Your task to perform on an android device: Go to ESPN.com Image 0: 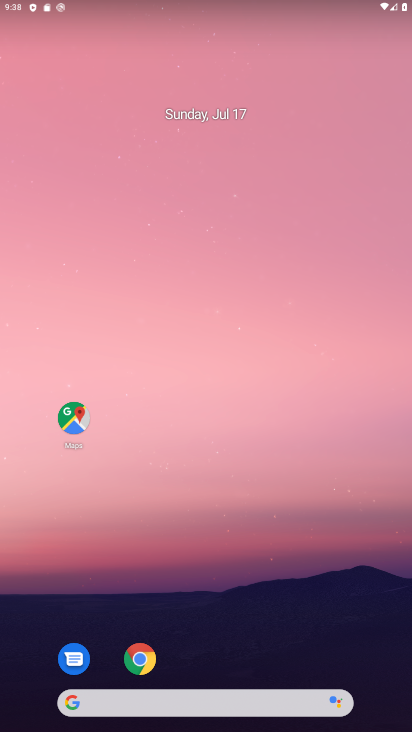
Step 0: click (150, 658)
Your task to perform on an android device: Go to ESPN.com Image 1: 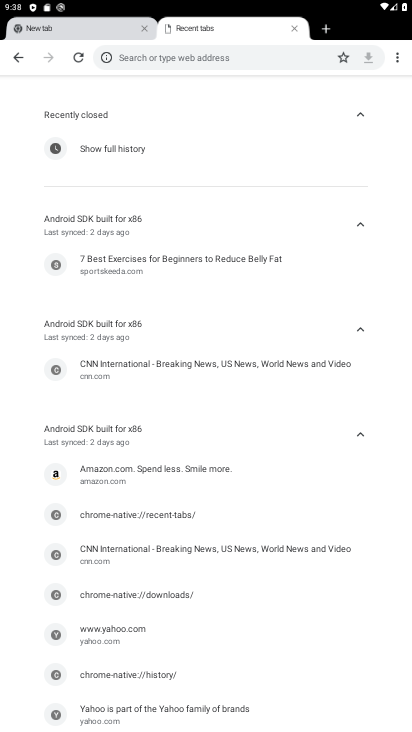
Step 1: click (184, 52)
Your task to perform on an android device: Go to ESPN.com Image 2: 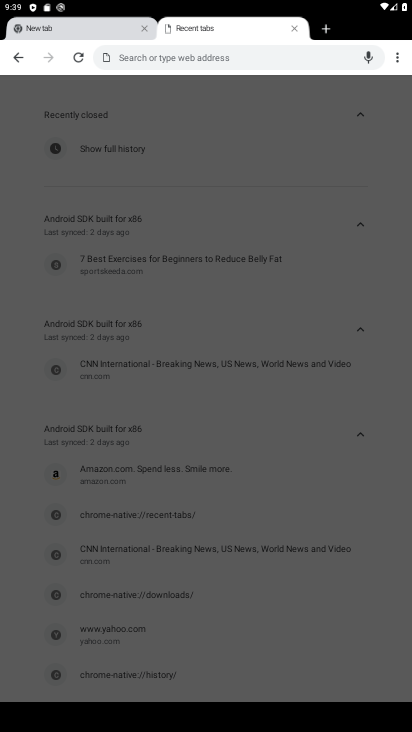
Step 2: type "ESPN.com"
Your task to perform on an android device: Go to ESPN.com Image 3: 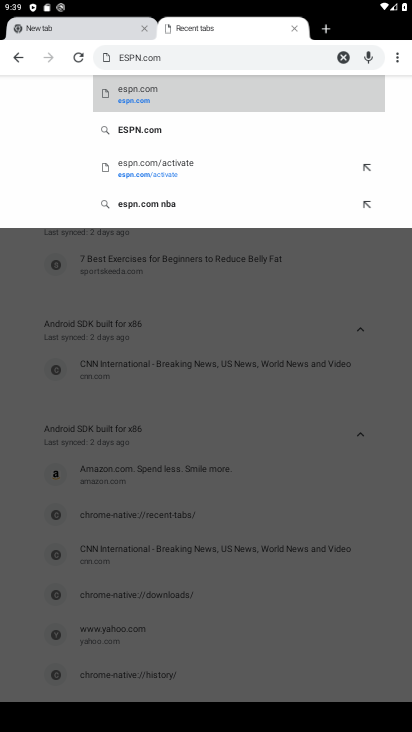
Step 3: click (154, 89)
Your task to perform on an android device: Go to ESPN.com Image 4: 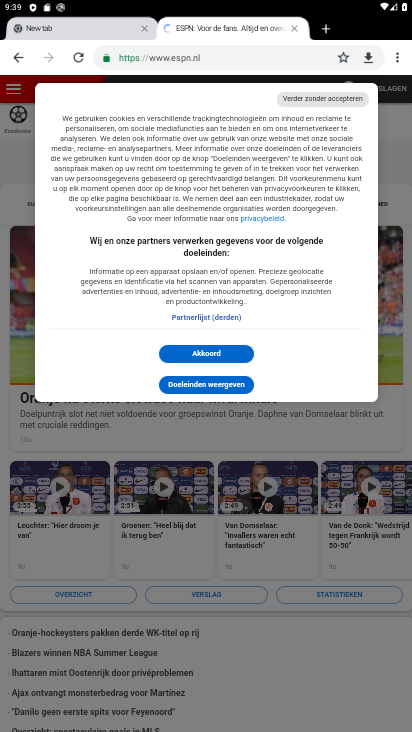
Step 4: task complete